Your task to perform on an android device: Open sound settings Image 0: 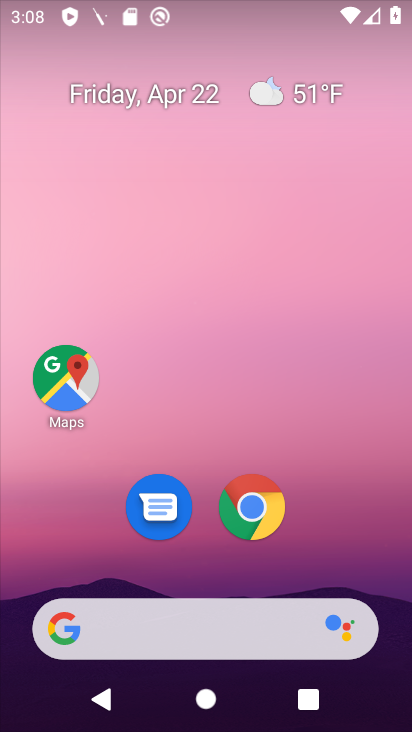
Step 0: drag from (161, 635) to (298, 104)
Your task to perform on an android device: Open sound settings Image 1: 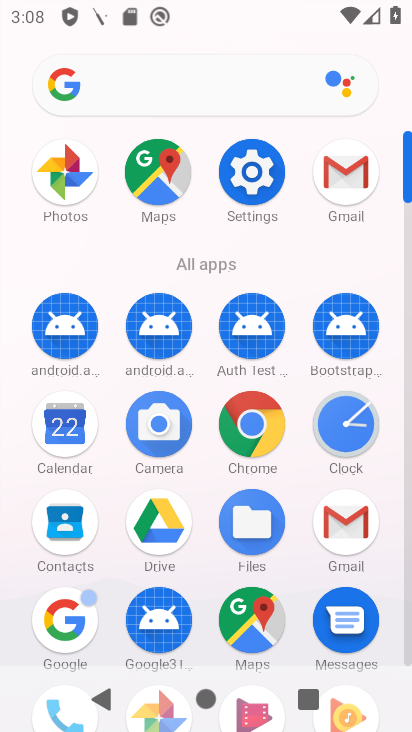
Step 1: click (250, 195)
Your task to perform on an android device: Open sound settings Image 2: 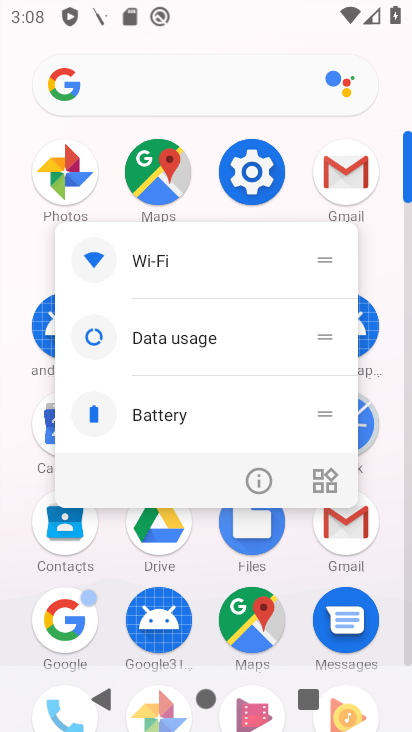
Step 2: click (247, 176)
Your task to perform on an android device: Open sound settings Image 3: 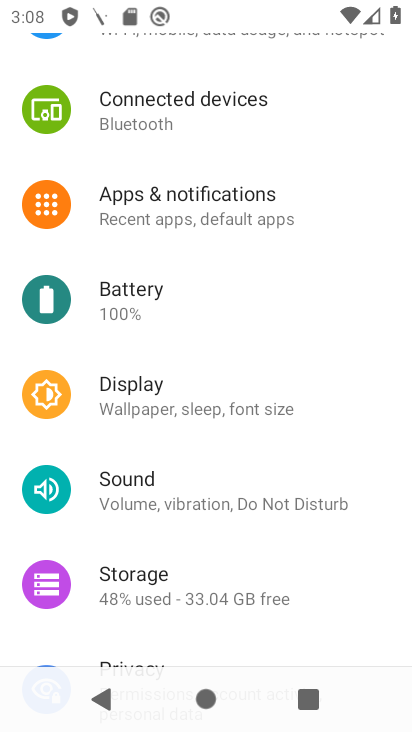
Step 3: click (105, 481)
Your task to perform on an android device: Open sound settings Image 4: 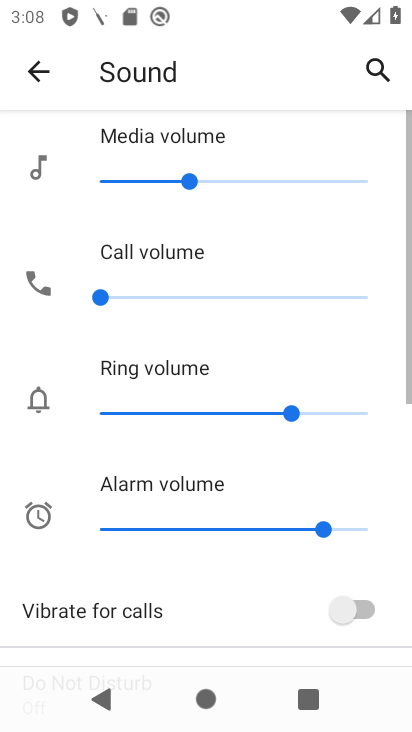
Step 4: task complete